Your task to perform on an android device: set the timer Image 0: 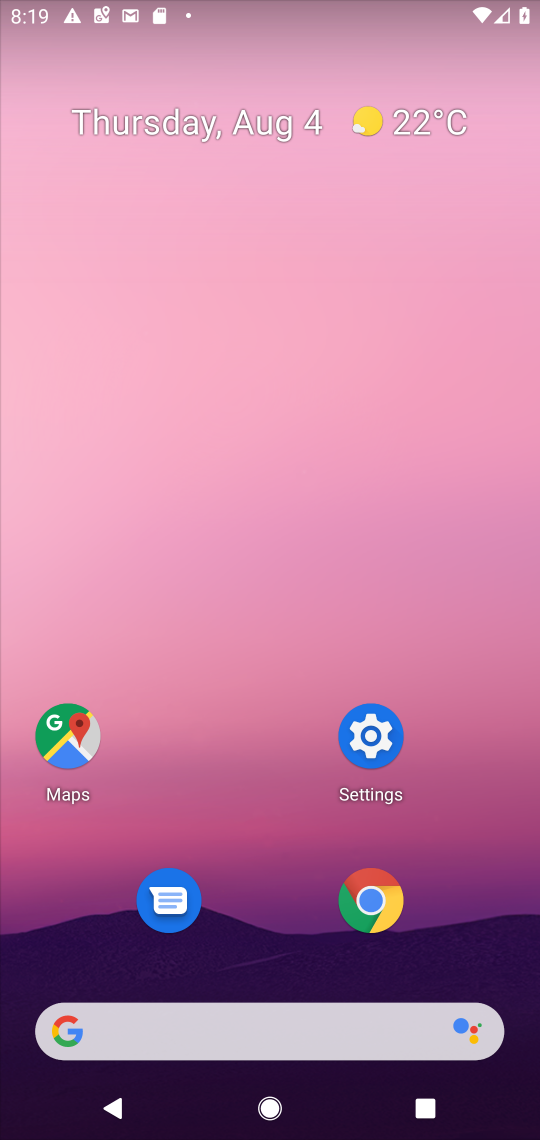
Step 0: press home button
Your task to perform on an android device: set the timer Image 1: 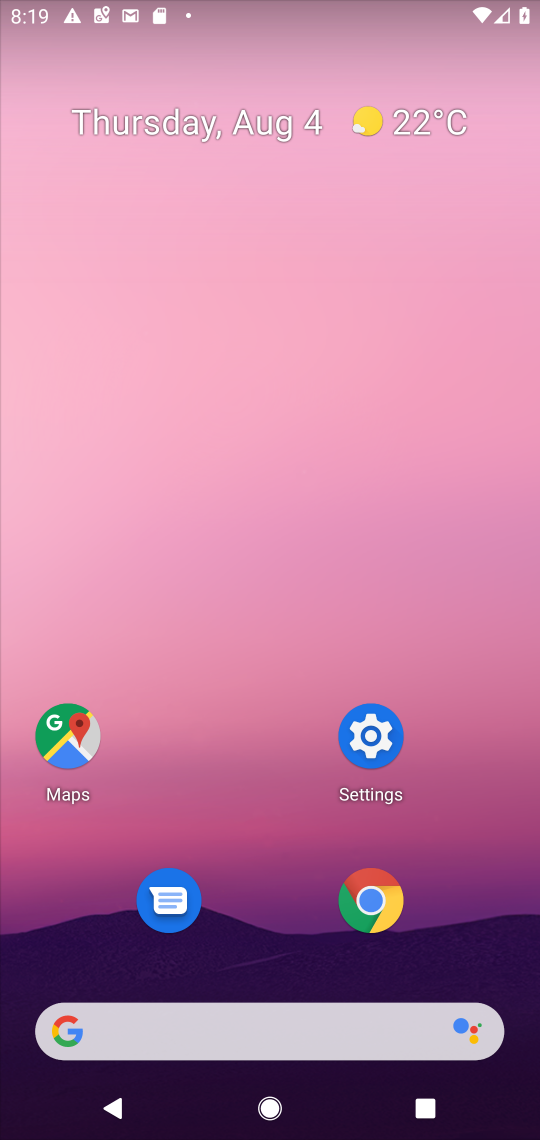
Step 1: drag from (228, 1043) to (405, 73)
Your task to perform on an android device: set the timer Image 2: 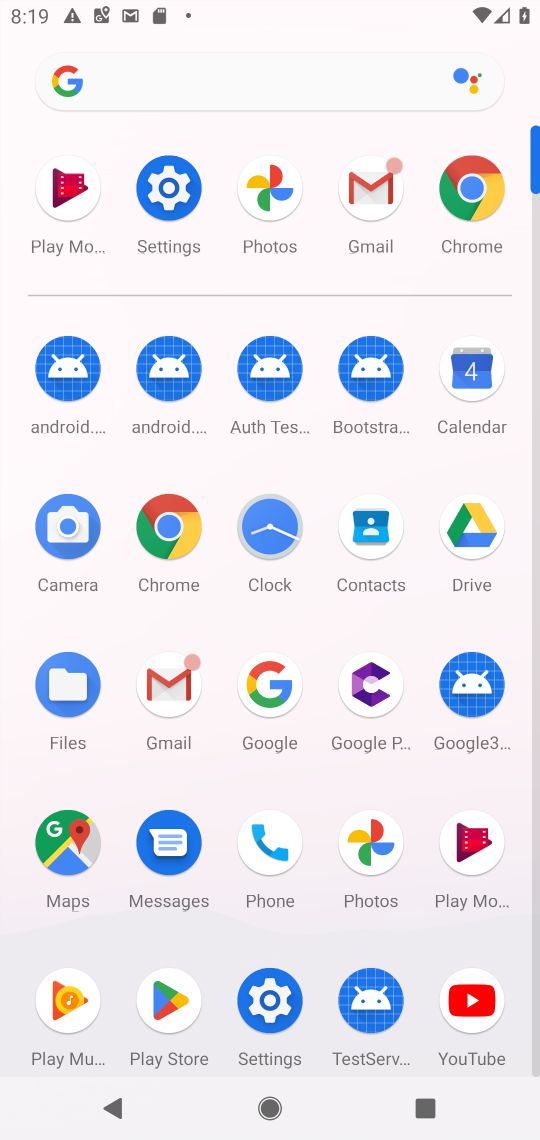
Step 2: click (264, 538)
Your task to perform on an android device: set the timer Image 3: 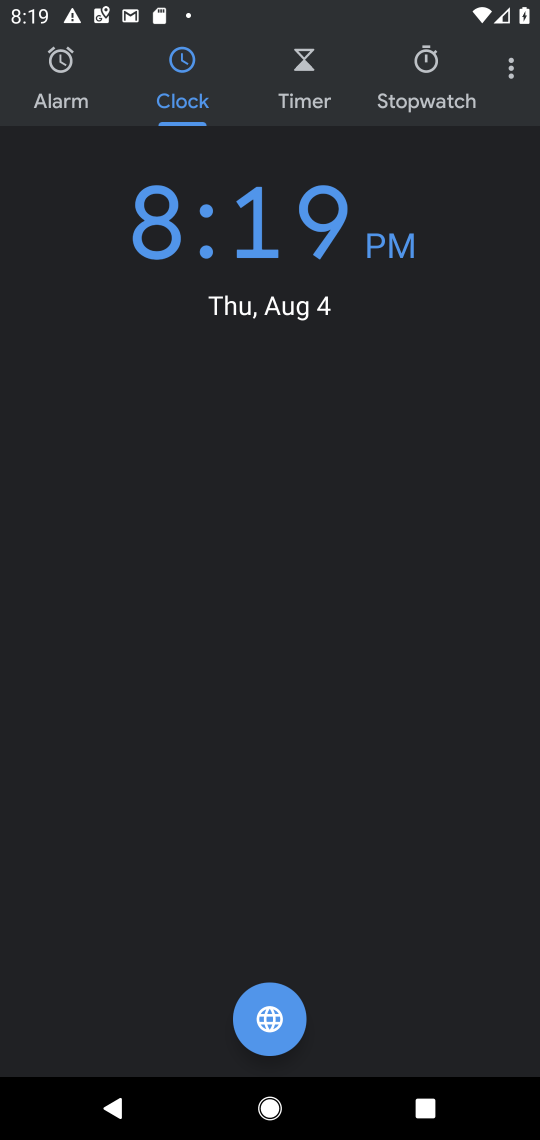
Step 3: click (303, 82)
Your task to perform on an android device: set the timer Image 4: 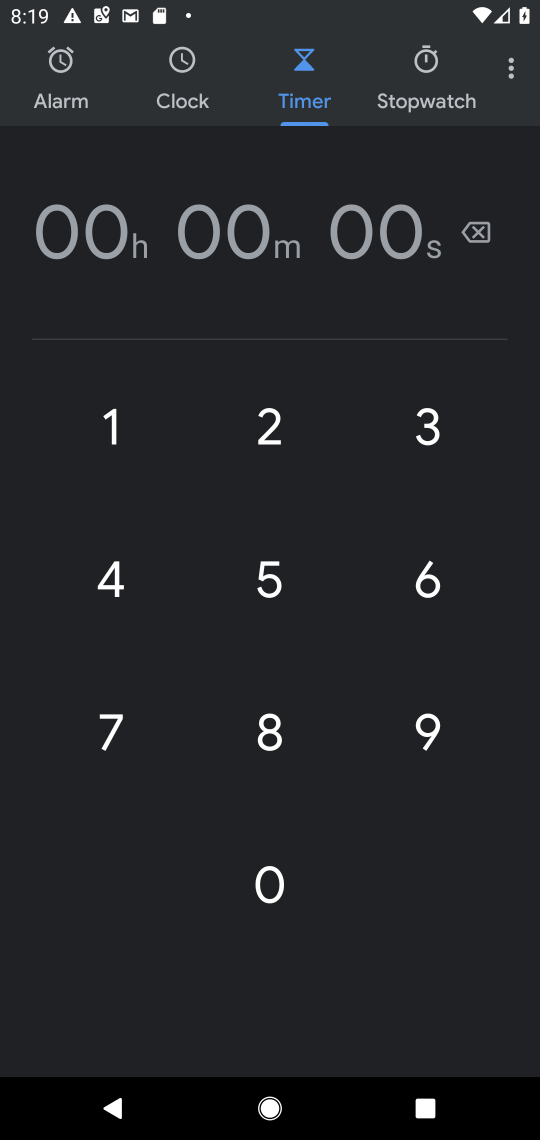
Step 4: click (104, 577)
Your task to perform on an android device: set the timer Image 5: 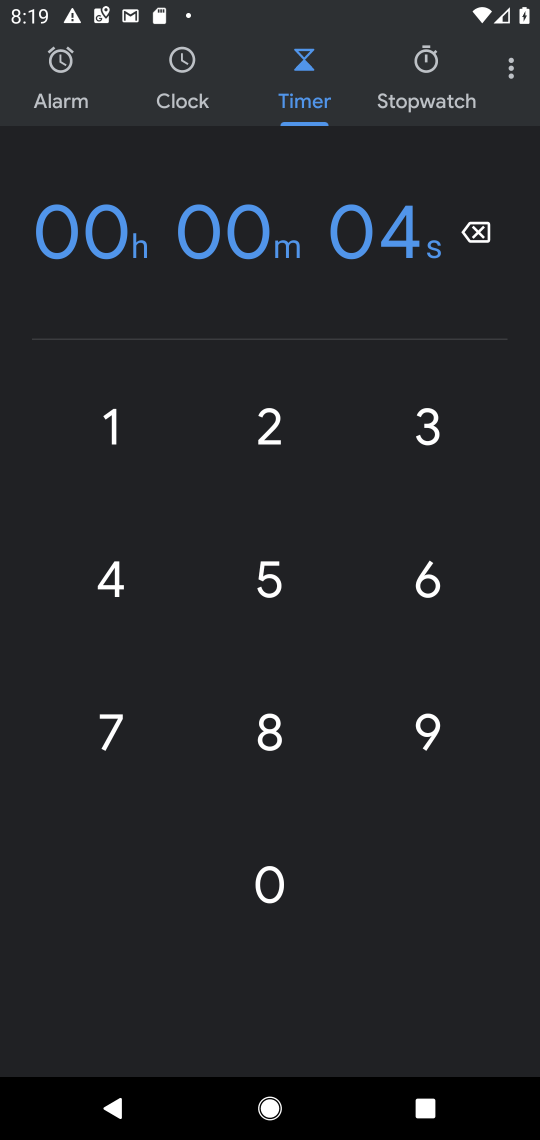
Step 5: click (279, 741)
Your task to perform on an android device: set the timer Image 6: 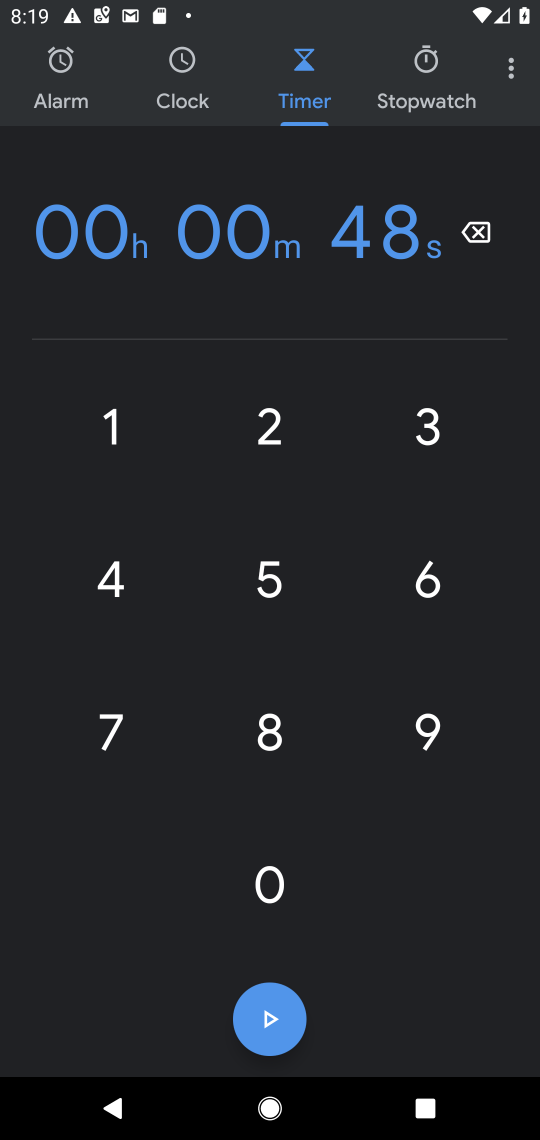
Step 6: click (288, 1031)
Your task to perform on an android device: set the timer Image 7: 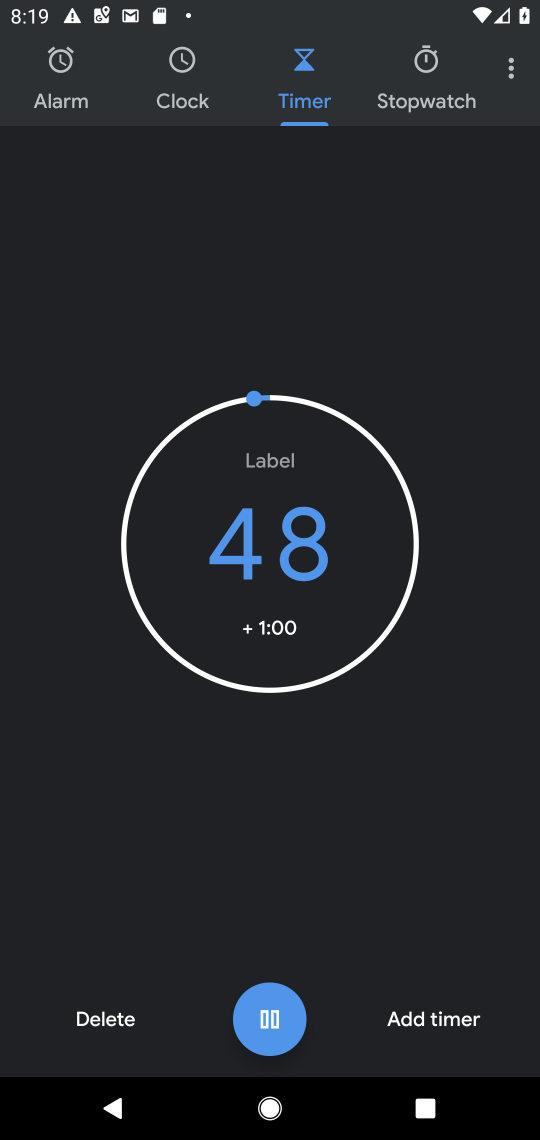
Step 7: click (288, 1032)
Your task to perform on an android device: set the timer Image 8: 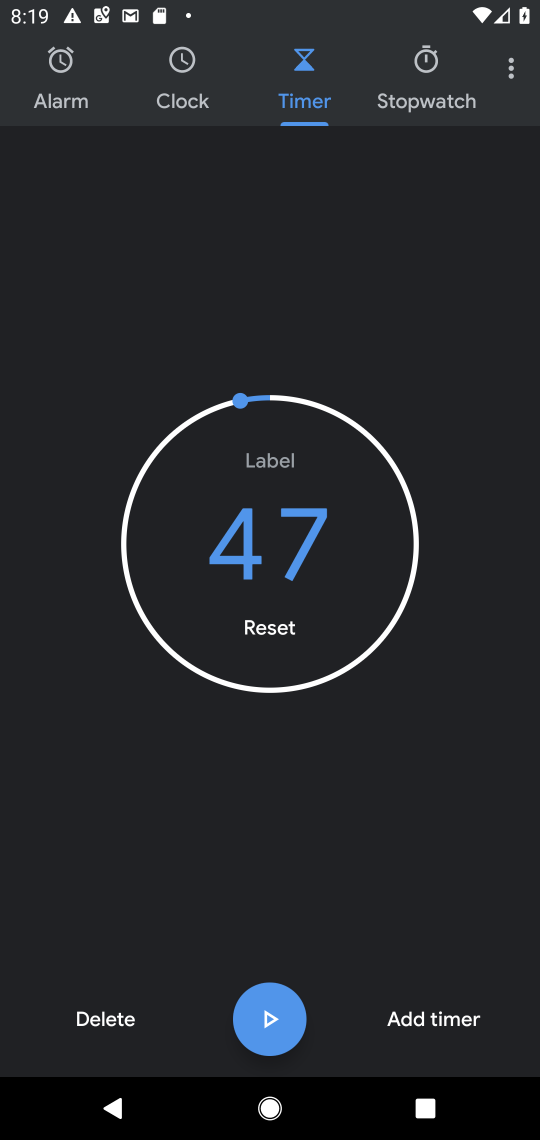
Step 8: task complete